Your task to perform on an android device: What's on my calendar tomorrow? Image 0: 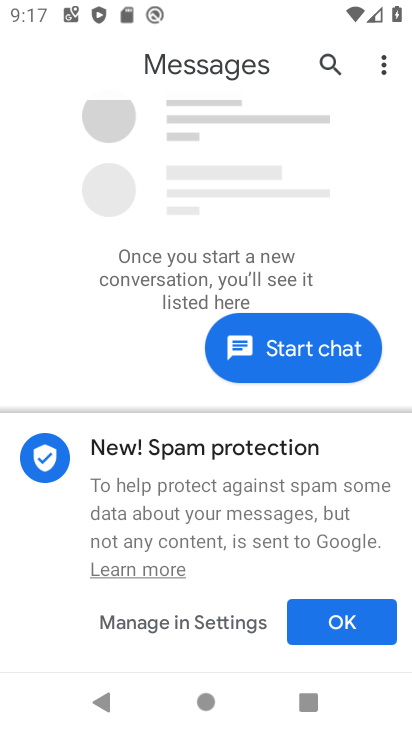
Step 0: press home button
Your task to perform on an android device: What's on my calendar tomorrow? Image 1: 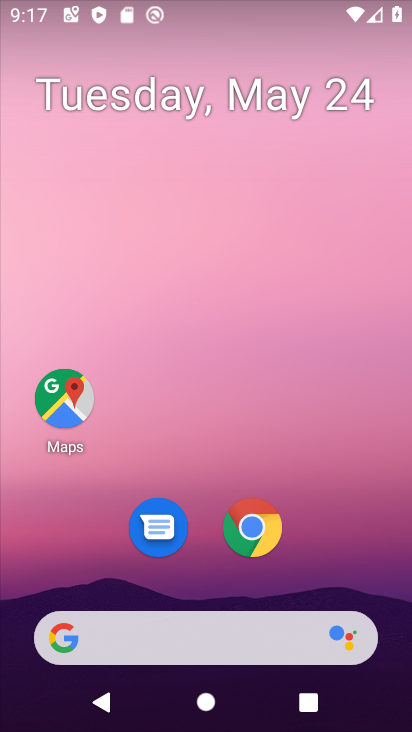
Step 1: drag from (402, 627) to (368, 221)
Your task to perform on an android device: What's on my calendar tomorrow? Image 2: 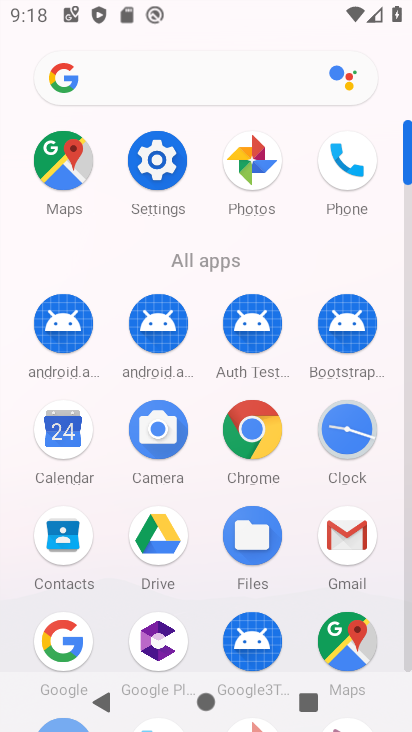
Step 2: click (57, 440)
Your task to perform on an android device: What's on my calendar tomorrow? Image 3: 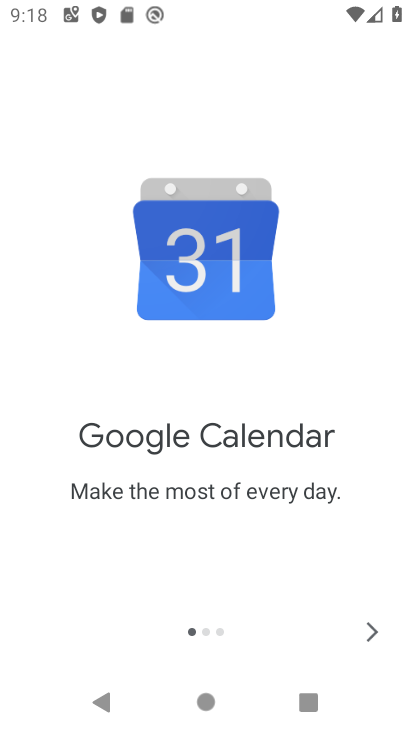
Step 3: click (375, 632)
Your task to perform on an android device: What's on my calendar tomorrow? Image 4: 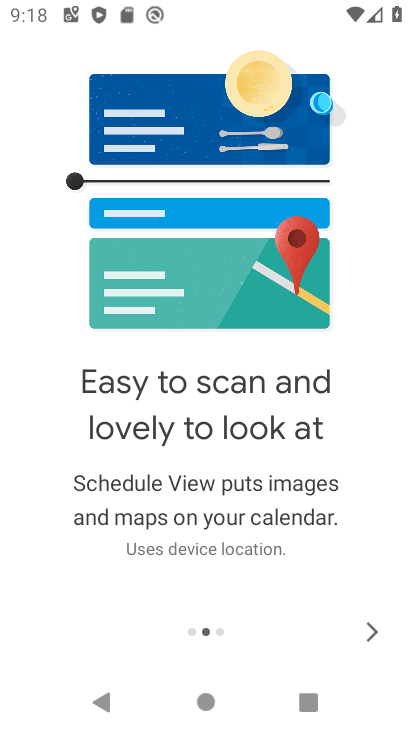
Step 4: click (372, 626)
Your task to perform on an android device: What's on my calendar tomorrow? Image 5: 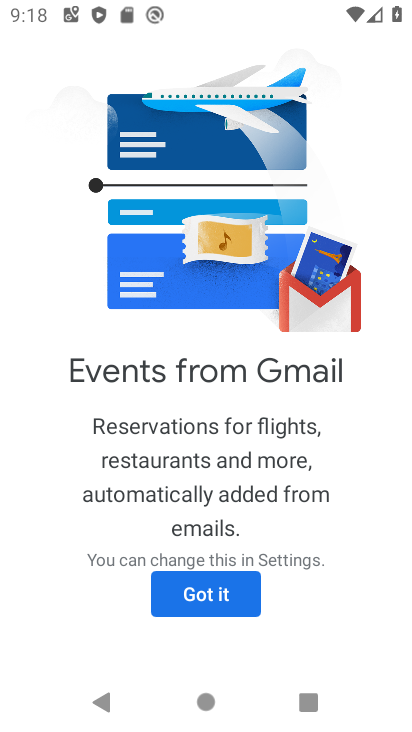
Step 5: click (372, 626)
Your task to perform on an android device: What's on my calendar tomorrow? Image 6: 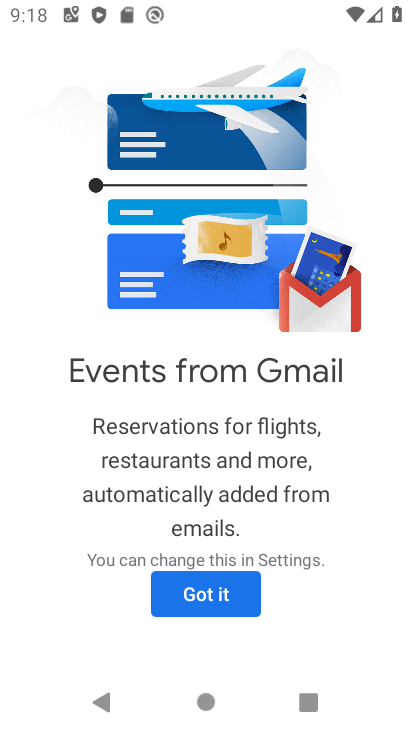
Step 6: click (214, 587)
Your task to perform on an android device: What's on my calendar tomorrow? Image 7: 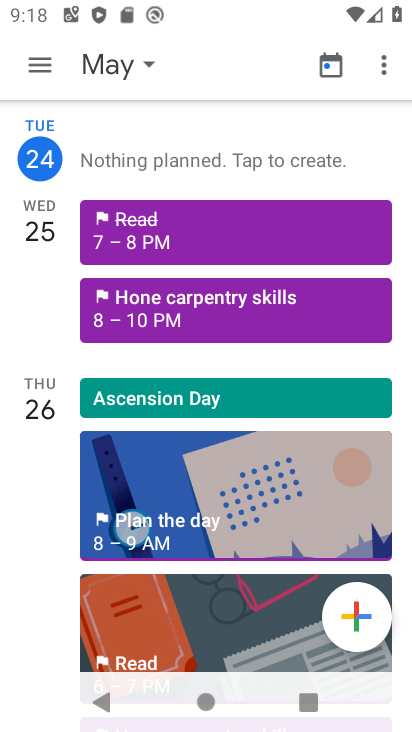
Step 7: click (143, 62)
Your task to perform on an android device: What's on my calendar tomorrow? Image 8: 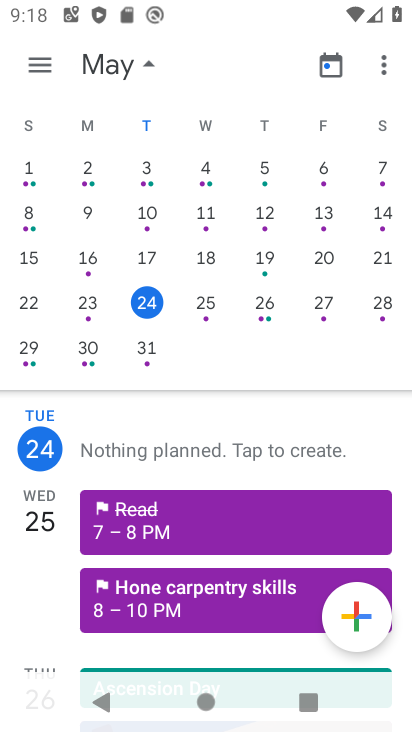
Step 8: click (200, 298)
Your task to perform on an android device: What's on my calendar tomorrow? Image 9: 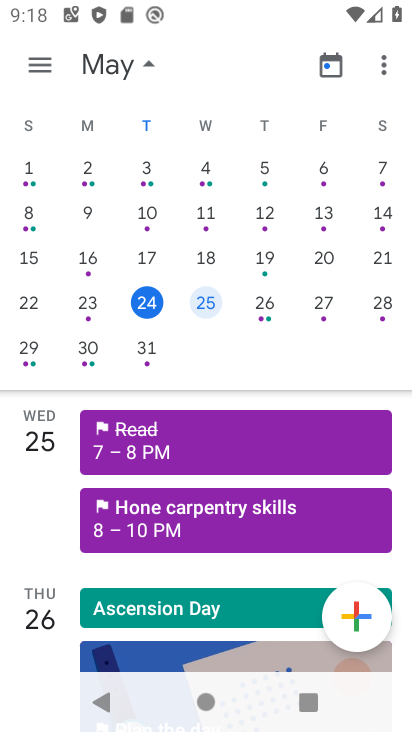
Step 9: click (40, 60)
Your task to perform on an android device: What's on my calendar tomorrow? Image 10: 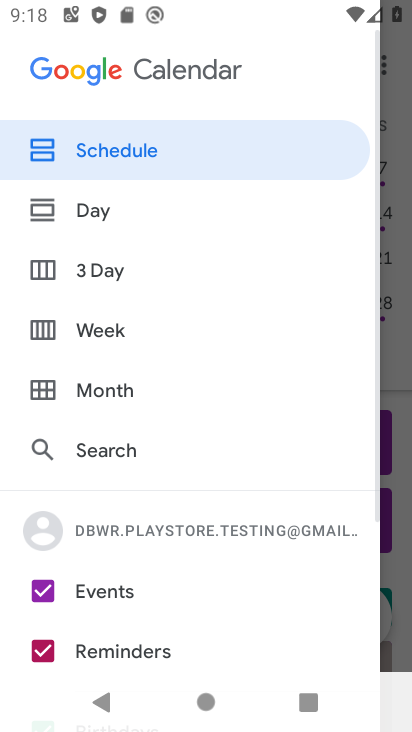
Step 10: click (86, 197)
Your task to perform on an android device: What's on my calendar tomorrow? Image 11: 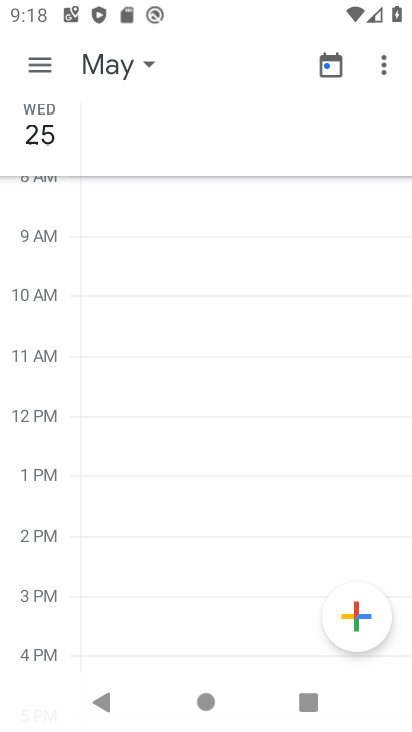
Step 11: click (34, 56)
Your task to perform on an android device: What's on my calendar tomorrow? Image 12: 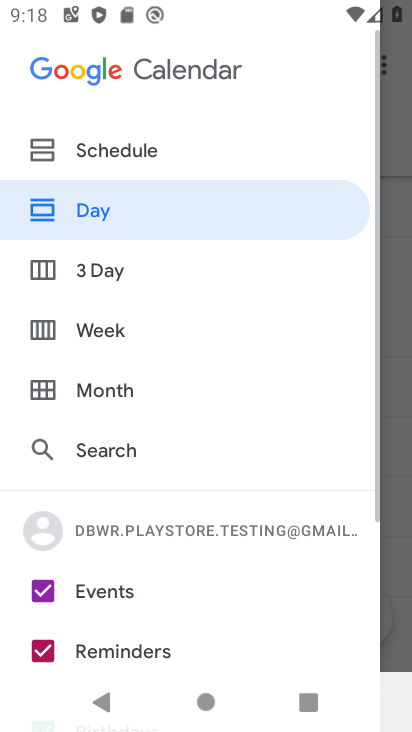
Step 12: click (105, 150)
Your task to perform on an android device: What's on my calendar tomorrow? Image 13: 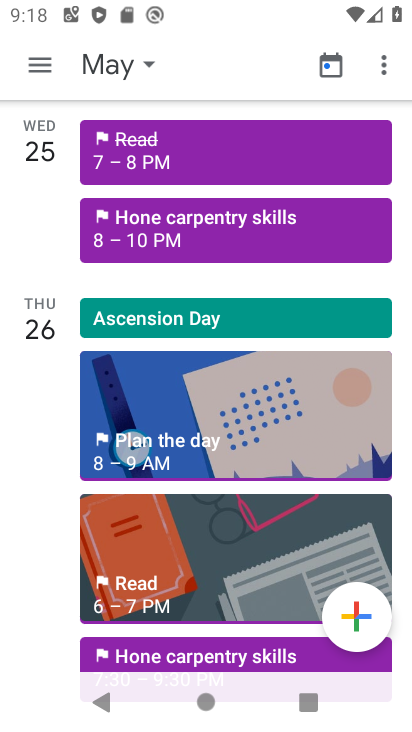
Step 13: task complete